Your task to perform on an android device: What's the weather going to be this weekend? Image 0: 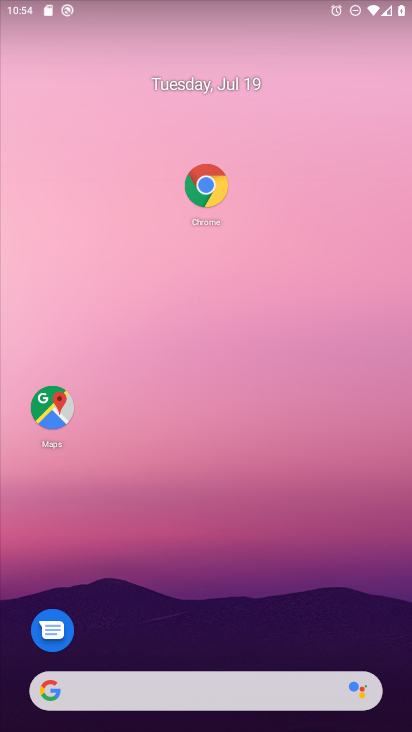
Step 0: drag from (119, 691) to (28, 168)
Your task to perform on an android device: What's the weather going to be this weekend? Image 1: 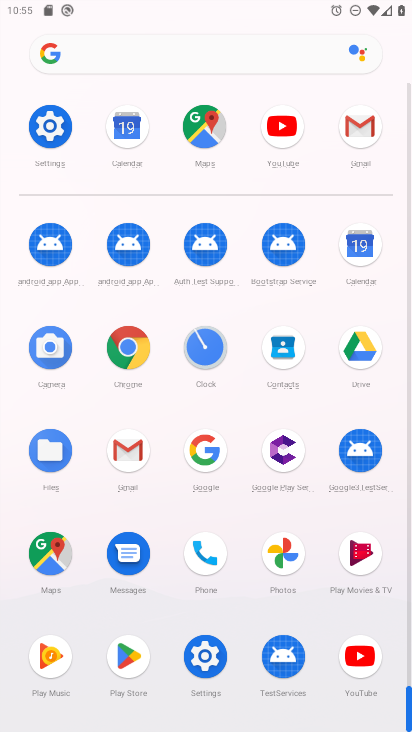
Step 1: click (197, 475)
Your task to perform on an android device: What's the weather going to be this weekend? Image 2: 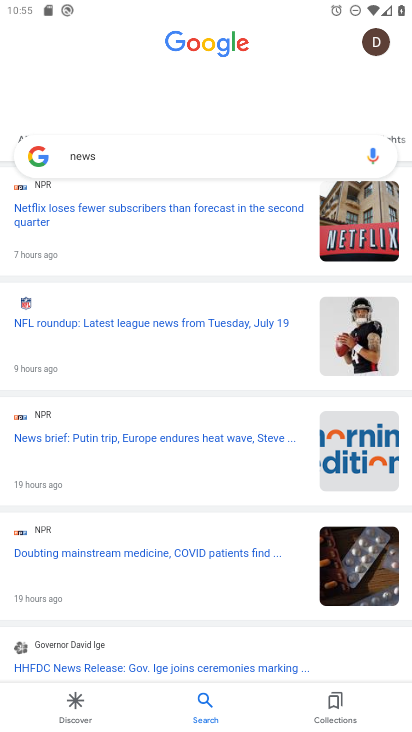
Step 2: click (197, 161)
Your task to perform on an android device: What's the weather going to be this weekend? Image 3: 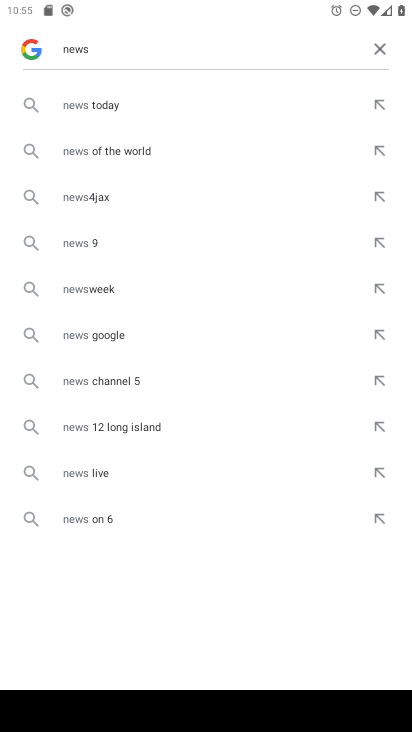
Step 3: click (376, 40)
Your task to perform on an android device: What's the weather going to be this weekend? Image 4: 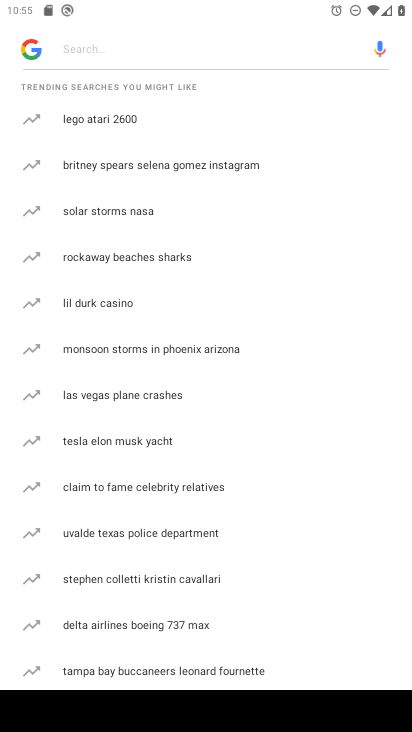
Step 4: type "weather"
Your task to perform on an android device: What's the weather going to be this weekend? Image 5: 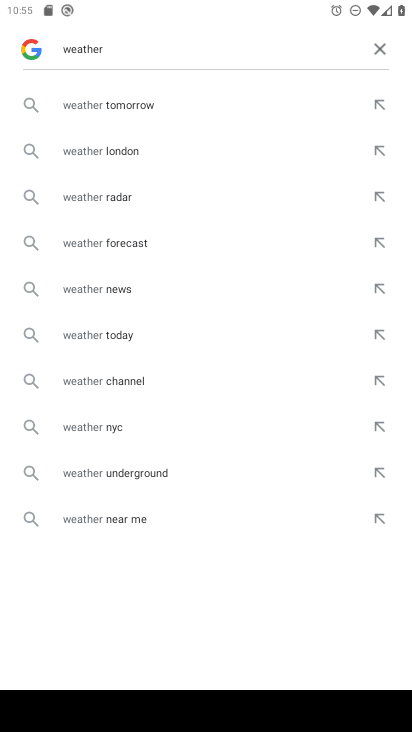
Step 5: click (188, 99)
Your task to perform on an android device: What's the weather going to be this weekend? Image 6: 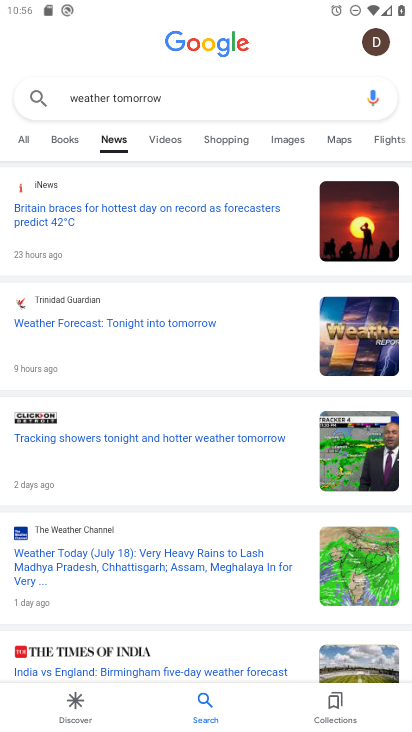
Step 6: click (21, 145)
Your task to perform on an android device: What's the weather going to be this weekend? Image 7: 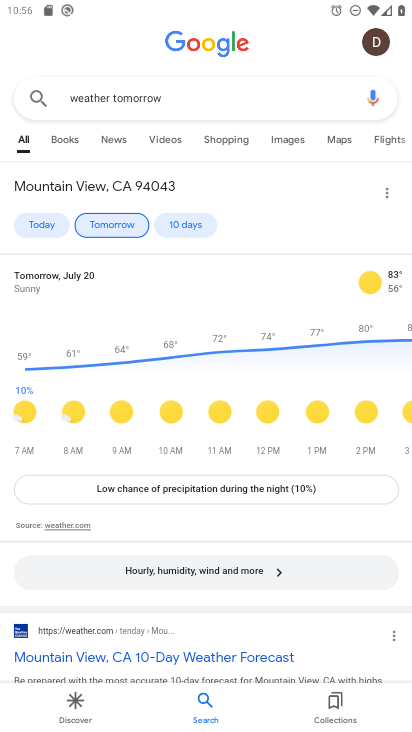
Step 7: click (195, 225)
Your task to perform on an android device: What's the weather going to be this weekend? Image 8: 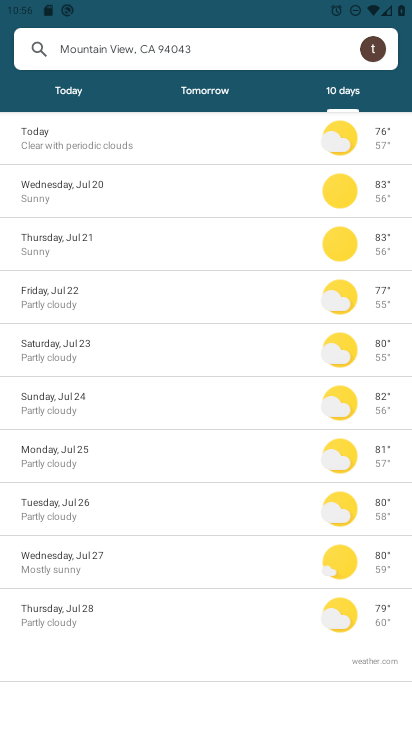
Step 8: task complete